Your task to perform on an android device: Search for dell xps on target, select the first entry, add it to the cart, then select checkout. Image 0: 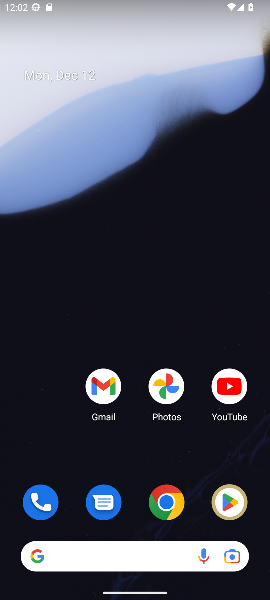
Step 0: click (114, 565)
Your task to perform on an android device: Search for dell xps on target, select the first entry, add it to the cart, then select checkout. Image 1: 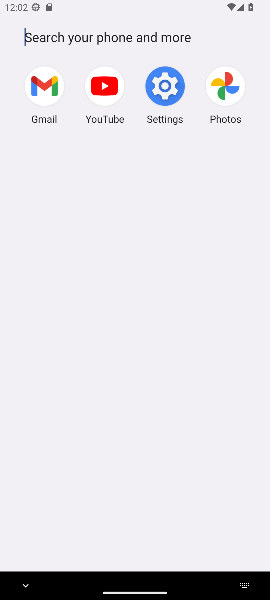
Step 1: press home button
Your task to perform on an android device: Search for dell xps on target, select the first entry, add it to the cart, then select checkout. Image 2: 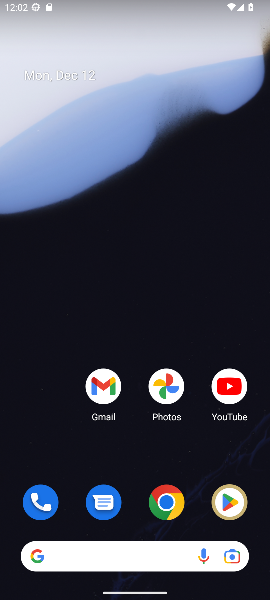
Step 2: click (155, 522)
Your task to perform on an android device: Search for dell xps on target, select the first entry, add it to the cart, then select checkout. Image 3: 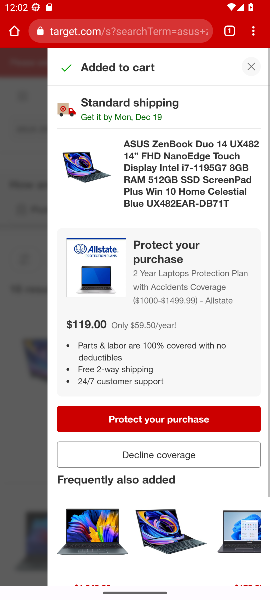
Step 3: click (247, 77)
Your task to perform on an android device: Search for dell xps on target, select the first entry, add it to the cart, then select checkout. Image 4: 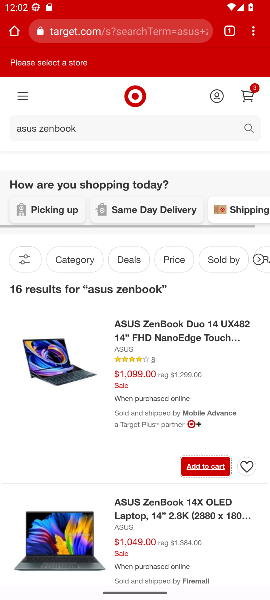
Step 4: click (146, 127)
Your task to perform on an android device: Search for dell xps on target, select the first entry, add it to the cart, then select checkout. Image 5: 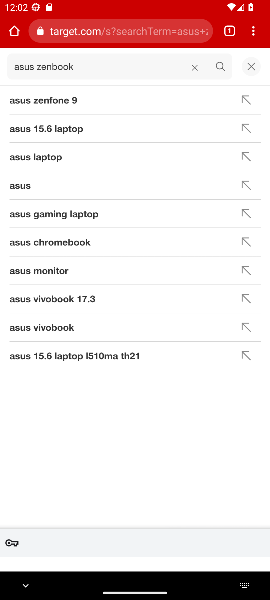
Step 5: type "dell xps"
Your task to perform on an android device: Search for dell xps on target, select the first entry, add it to the cart, then select checkout. Image 6: 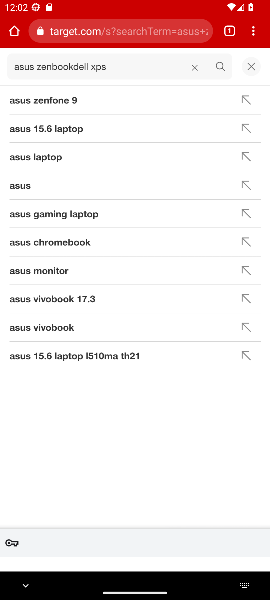
Step 6: click (194, 69)
Your task to perform on an android device: Search for dell xps on target, select the first entry, add it to the cart, then select checkout. Image 7: 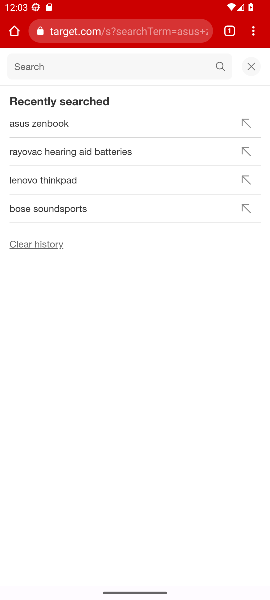
Step 7: type "dell xps"
Your task to perform on an android device: Search for dell xps on target, select the first entry, add it to the cart, then select checkout. Image 8: 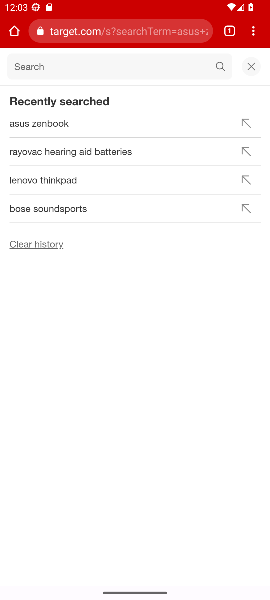
Step 8: click (91, 71)
Your task to perform on an android device: Search for dell xps on target, select the first entry, add it to the cart, then select checkout. Image 9: 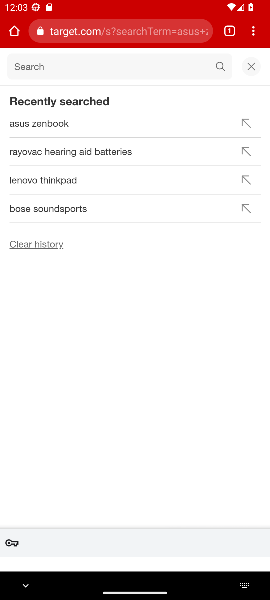
Step 9: type "dell xps"
Your task to perform on an android device: Search for dell xps on target, select the first entry, add it to the cart, then select checkout. Image 10: 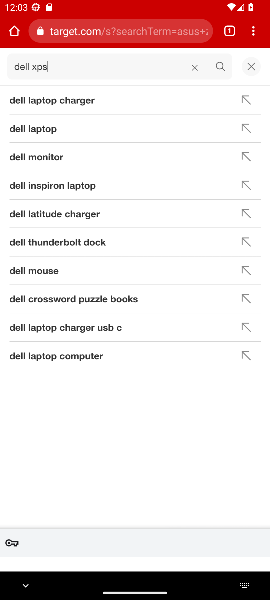
Step 10: click (49, 111)
Your task to perform on an android device: Search for dell xps on target, select the first entry, add it to the cart, then select checkout. Image 11: 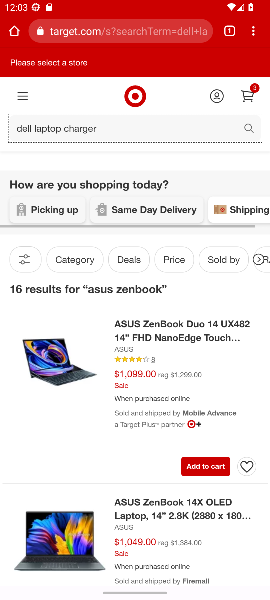
Step 11: task complete